Your task to perform on an android device: What is the recent news? Image 0: 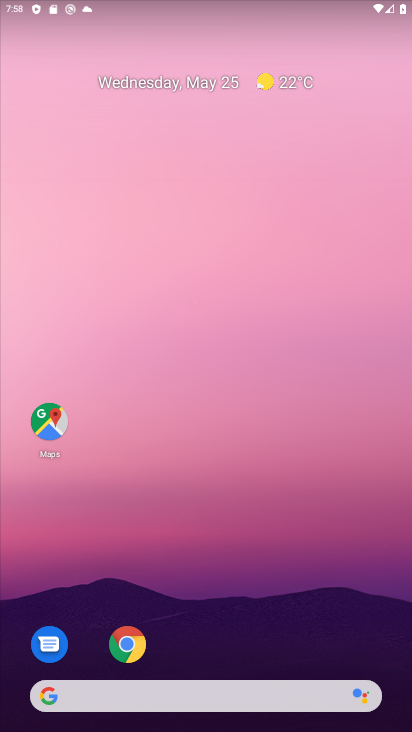
Step 0: click (179, 702)
Your task to perform on an android device: What is the recent news? Image 1: 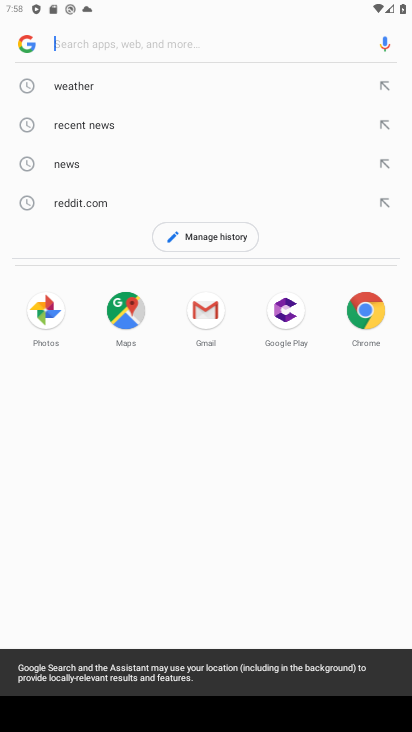
Step 1: click (110, 124)
Your task to perform on an android device: What is the recent news? Image 2: 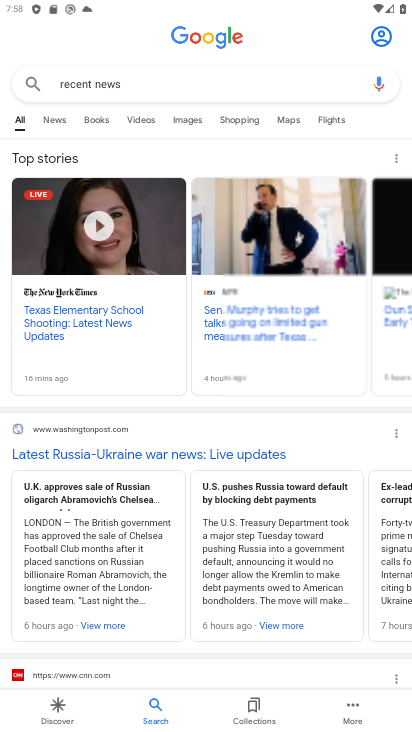
Step 2: task complete